Your task to perform on an android device: Go to privacy settings Image 0: 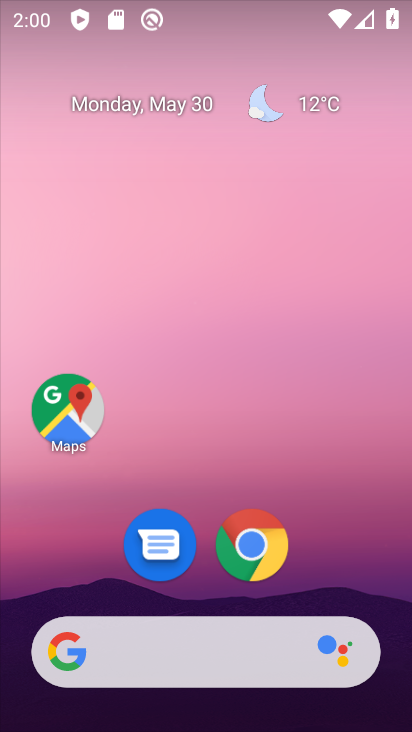
Step 0: drag from (222, 583) to (238, 203)
Your task to perform on an android device: Go to privacy settings Image 1: 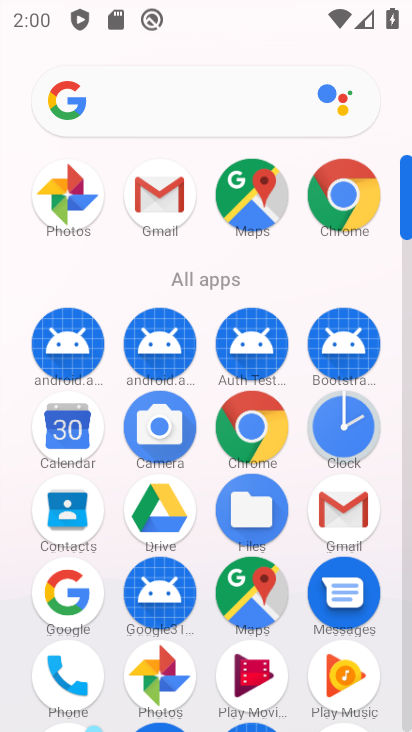
Step 1: drag from (202, 648) to (223, 34)
Your task to perform on an android device: Go to privacy settings Image 2: 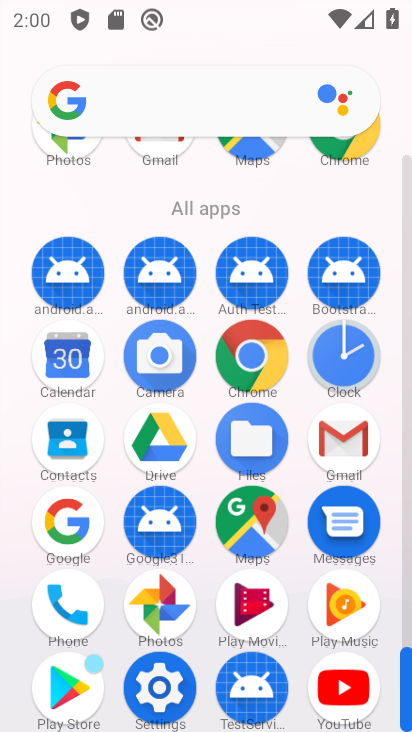
Step 2: click (166, 681)
Your task to perform on an android device: Go to privacy settings Image 3: 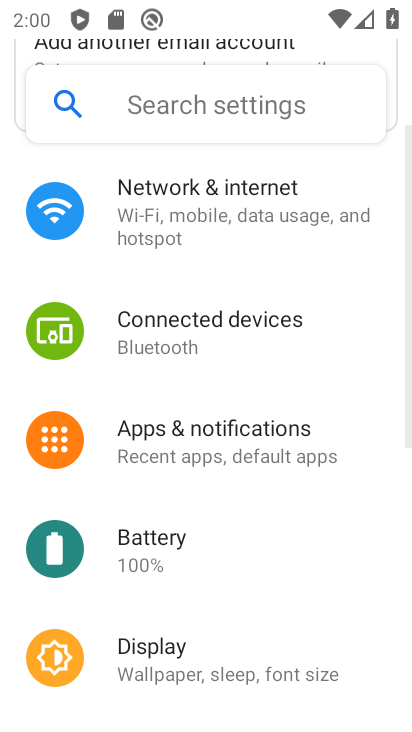
Step 3: drag from (166, 681) to (252, 115)
Your task to perform on an android device: Go to privacy settings Image 4: 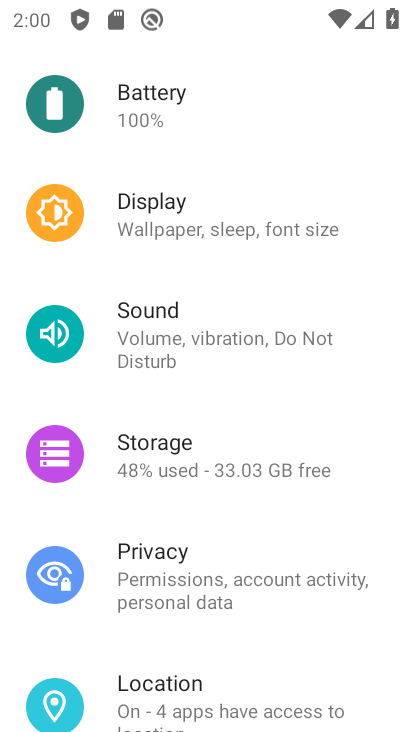
Step 4: click (176, 580)
Your task to perform on an android device: Go to privacy settings Image 5: 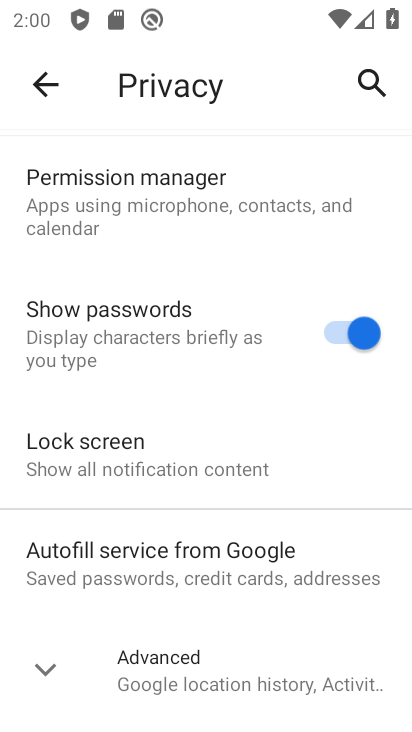
Step 5: task complete